Your task to perform on an android device: open app "Fetch Rewards" Image 0: 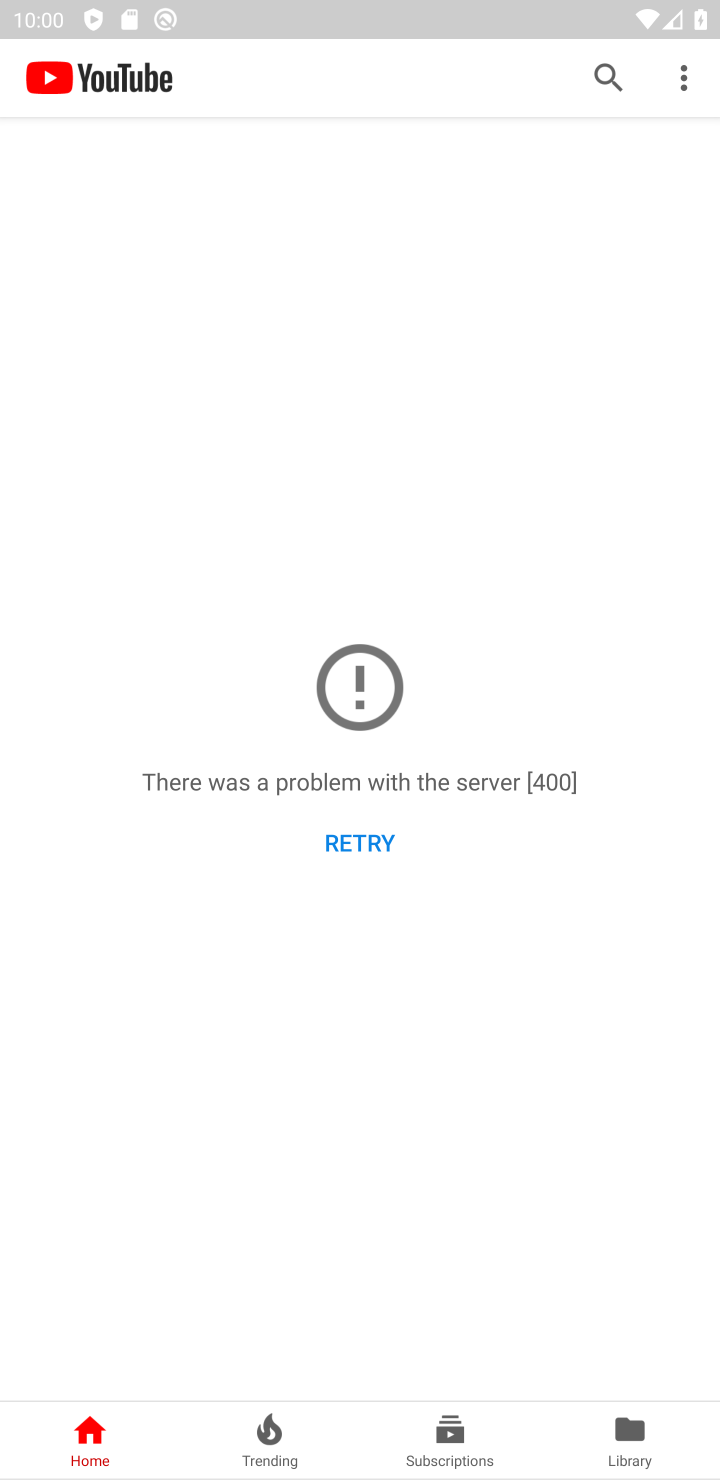
Step 0: press home button
Your task to perform on an android device: open app "Fetch Rewards" Image 1: 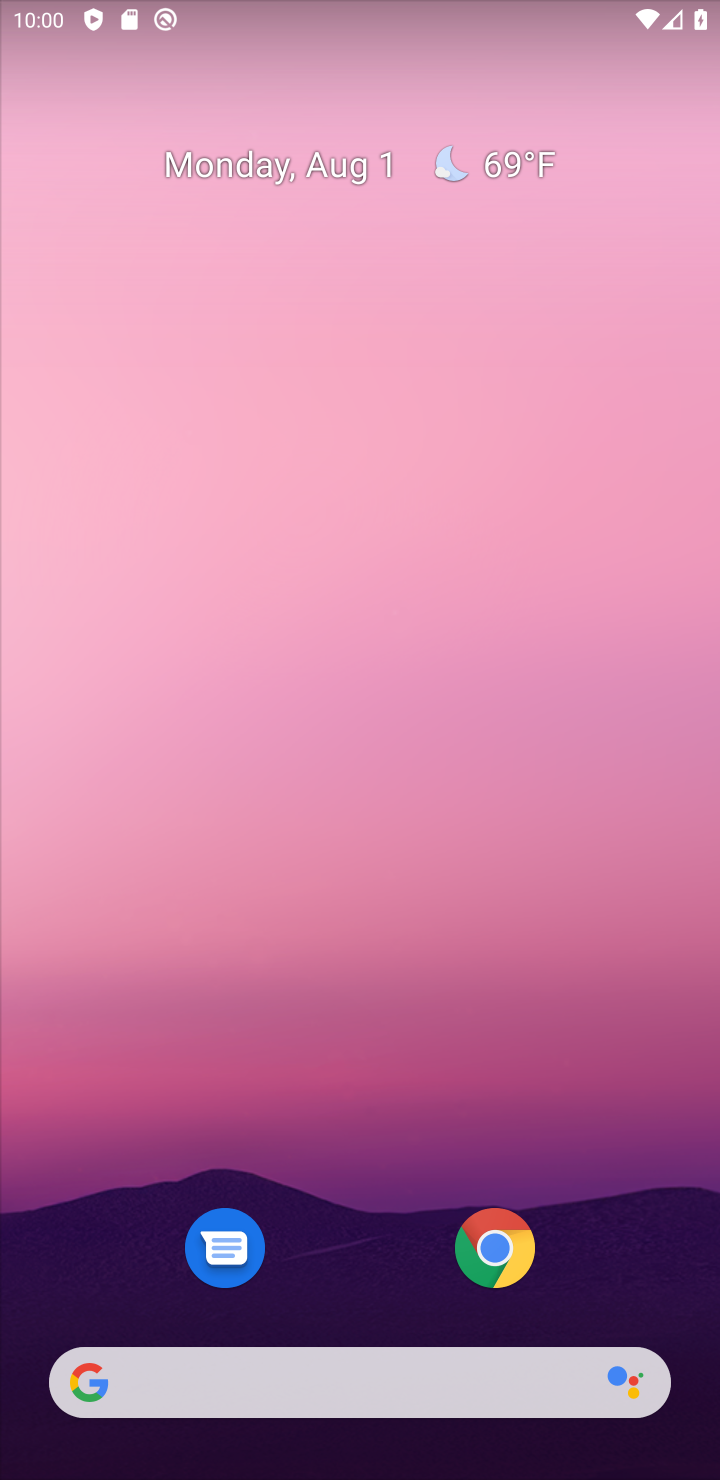
Step 1: drag from (425, 542) to (459, 144)
Your task to perform on an android device: open app "Fetch Rewards" Image 2: 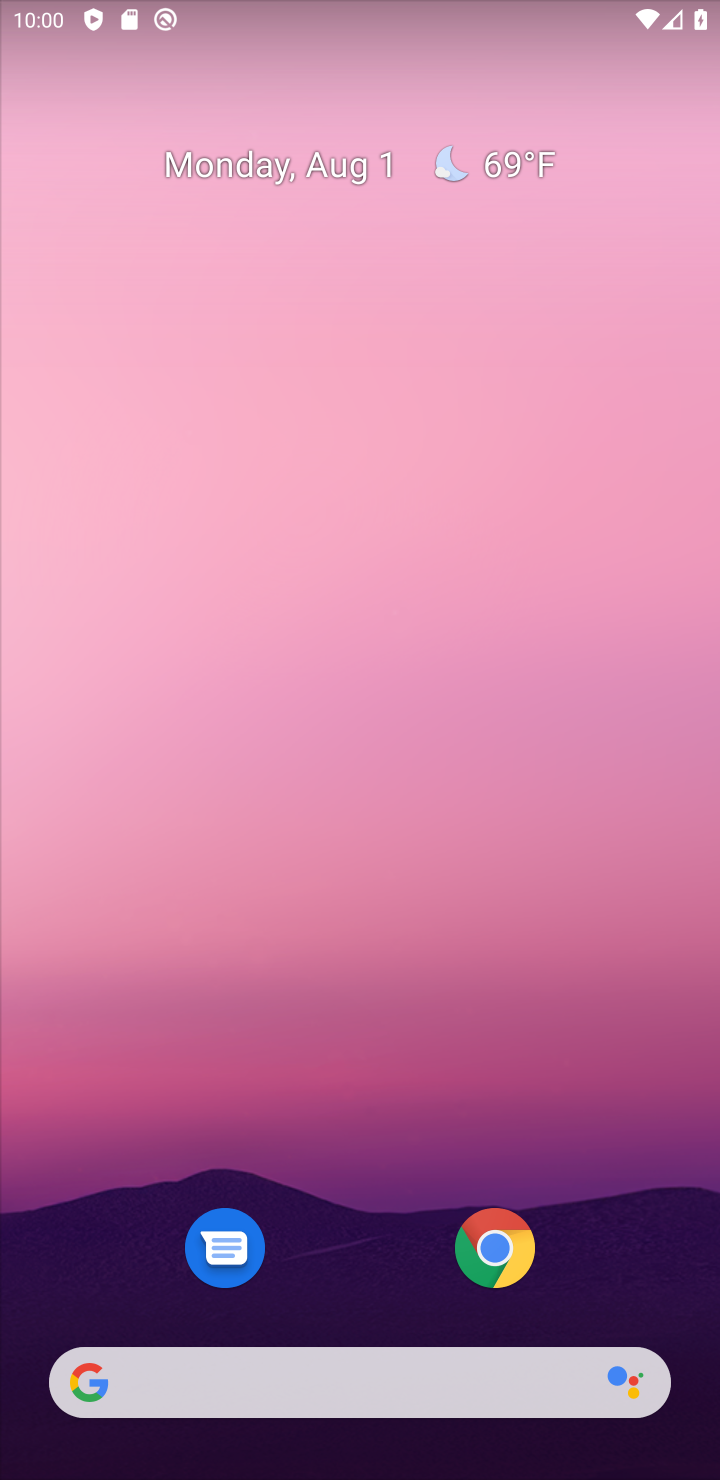
Step 2: drag from (349, 974) to (297, 8)
Your task to perform on an android device: open app "Fetch Rewards" Image 3: 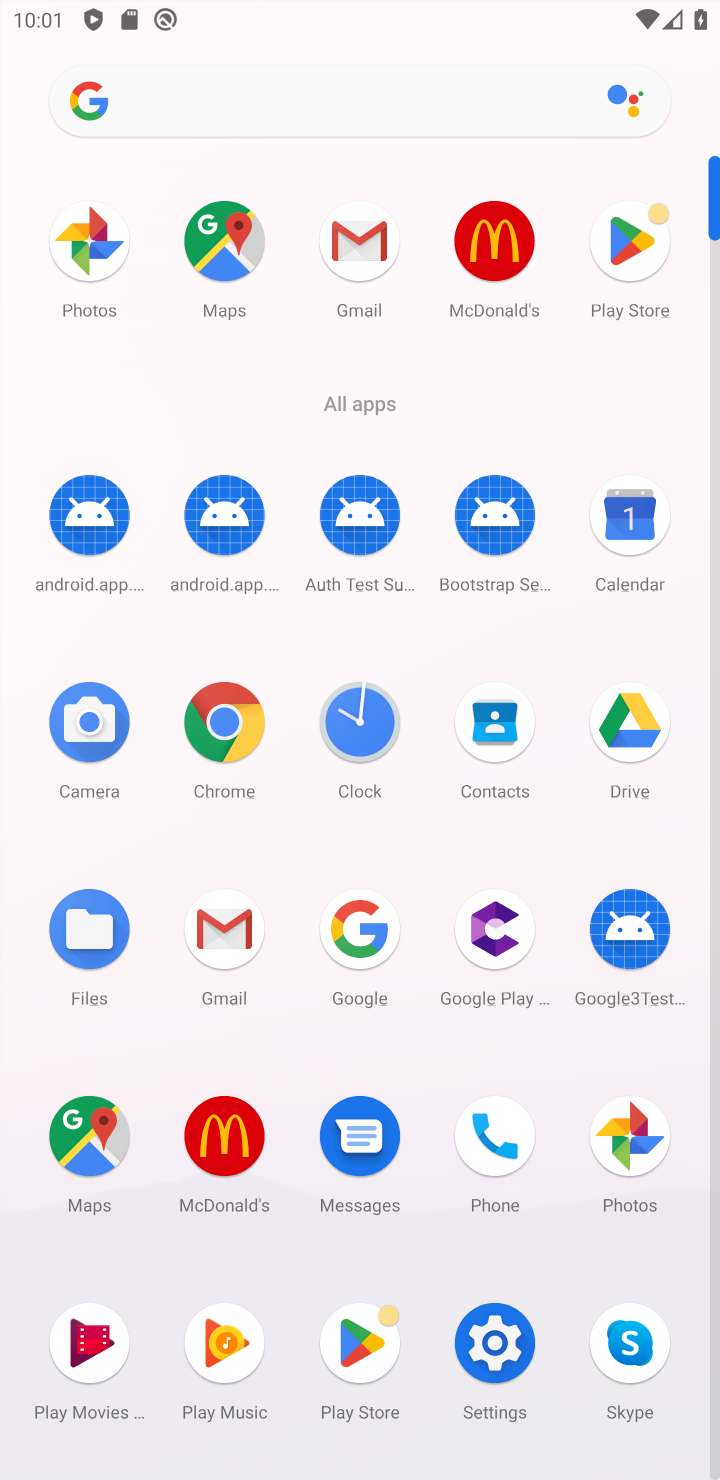
Step 3: click (643, 236)
Your task to perform on an android device: open app "Fetch Rewards" Image 4: 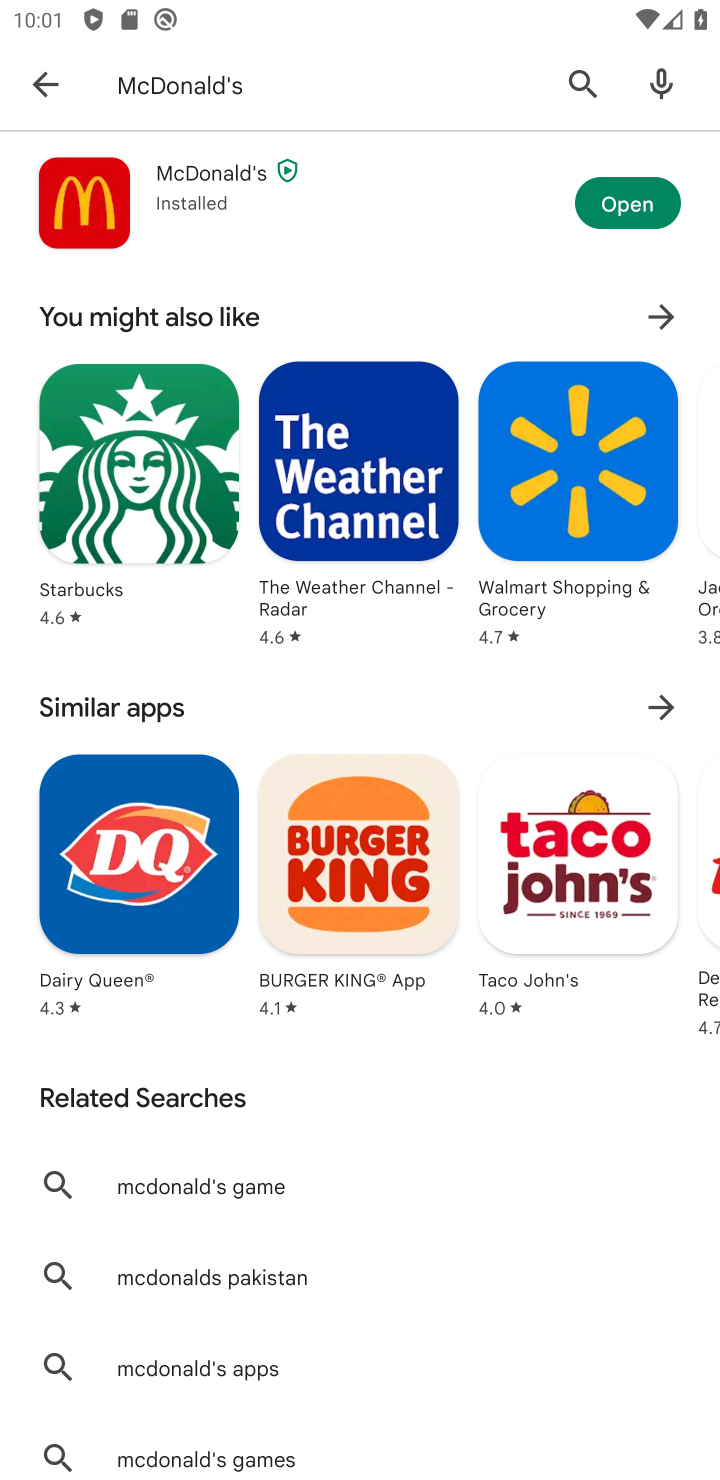
Step 4: click (461, 99)
Your task to perform on an android device: open app "Fetch Rewards" Image 5: 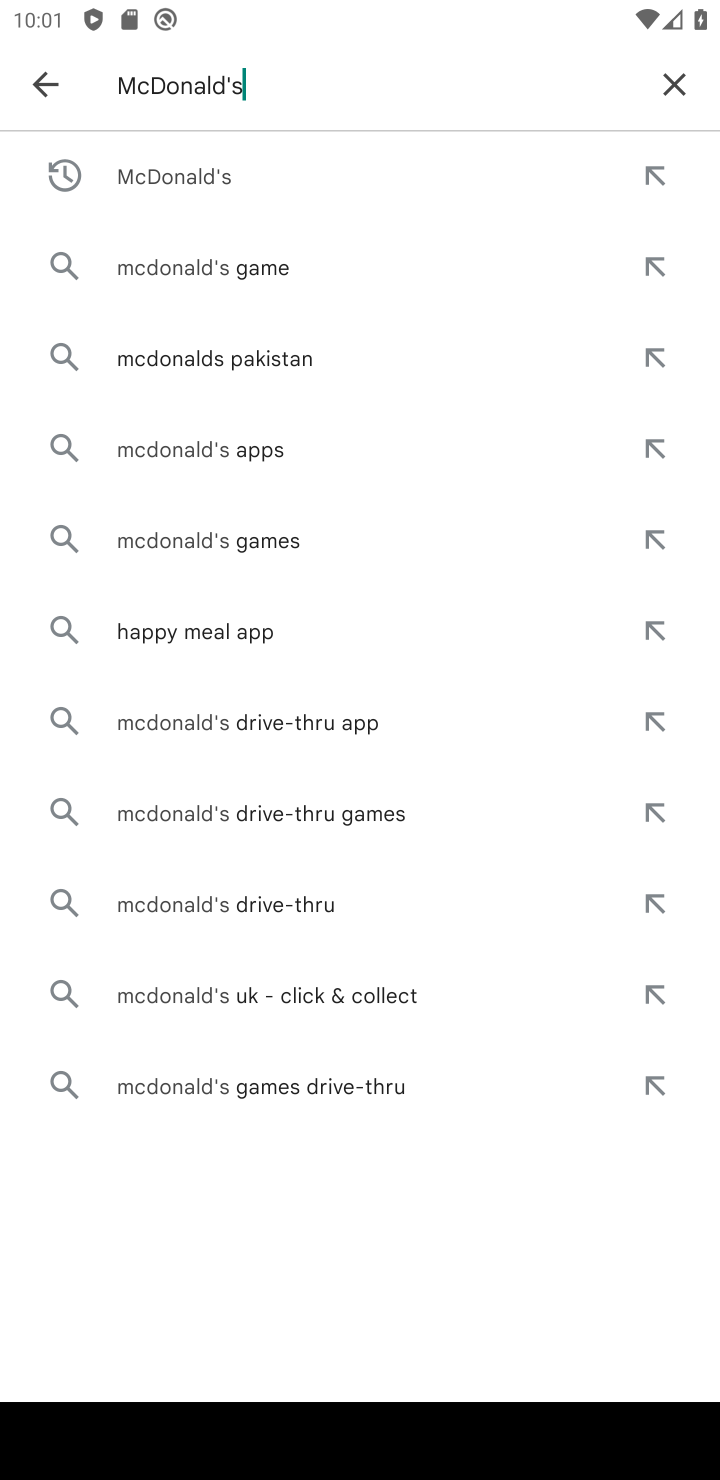
Step 5: click (684, 76)
Your task to perform on an android device: open app "Fetch Rewards" Image 6: 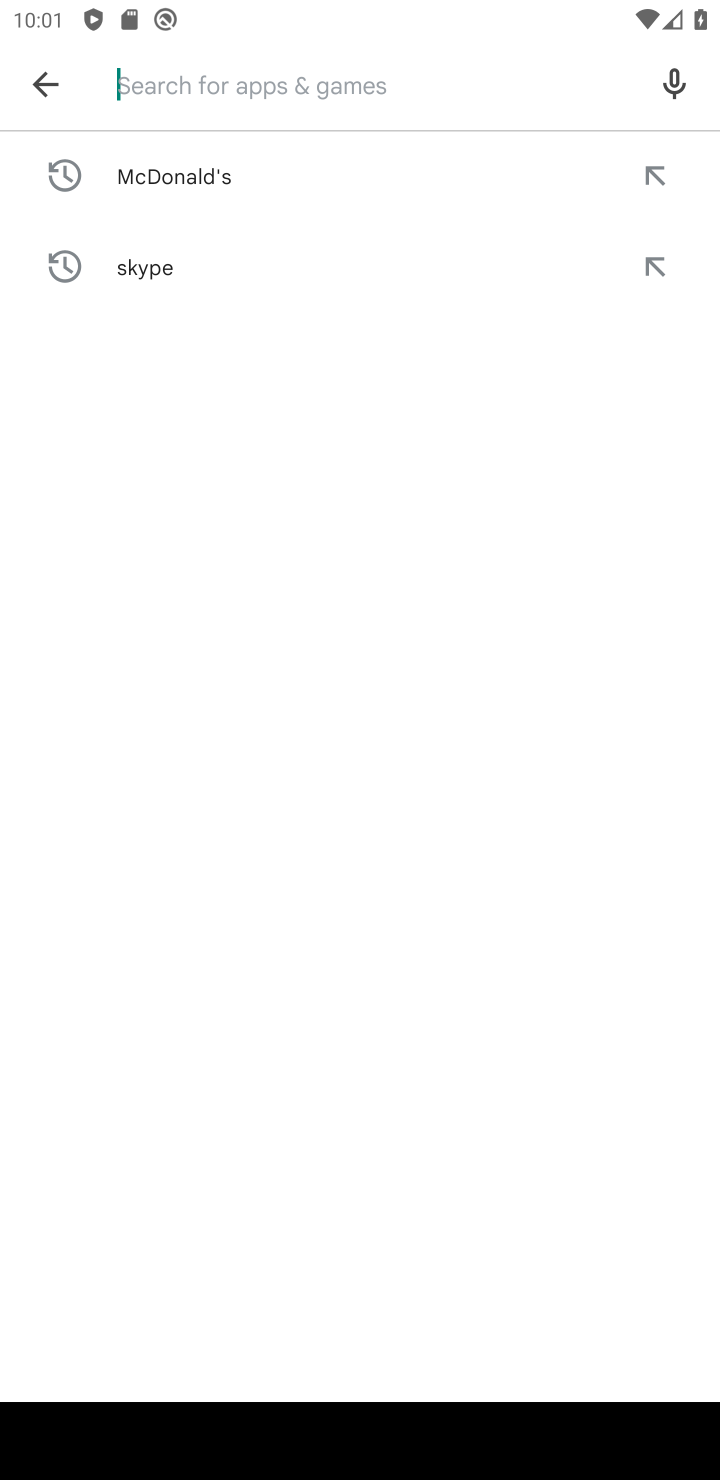
Step 6: type "Fetch Rewards"
Your task to perform on an android device: open app "Fetch Rewards" Image 7: 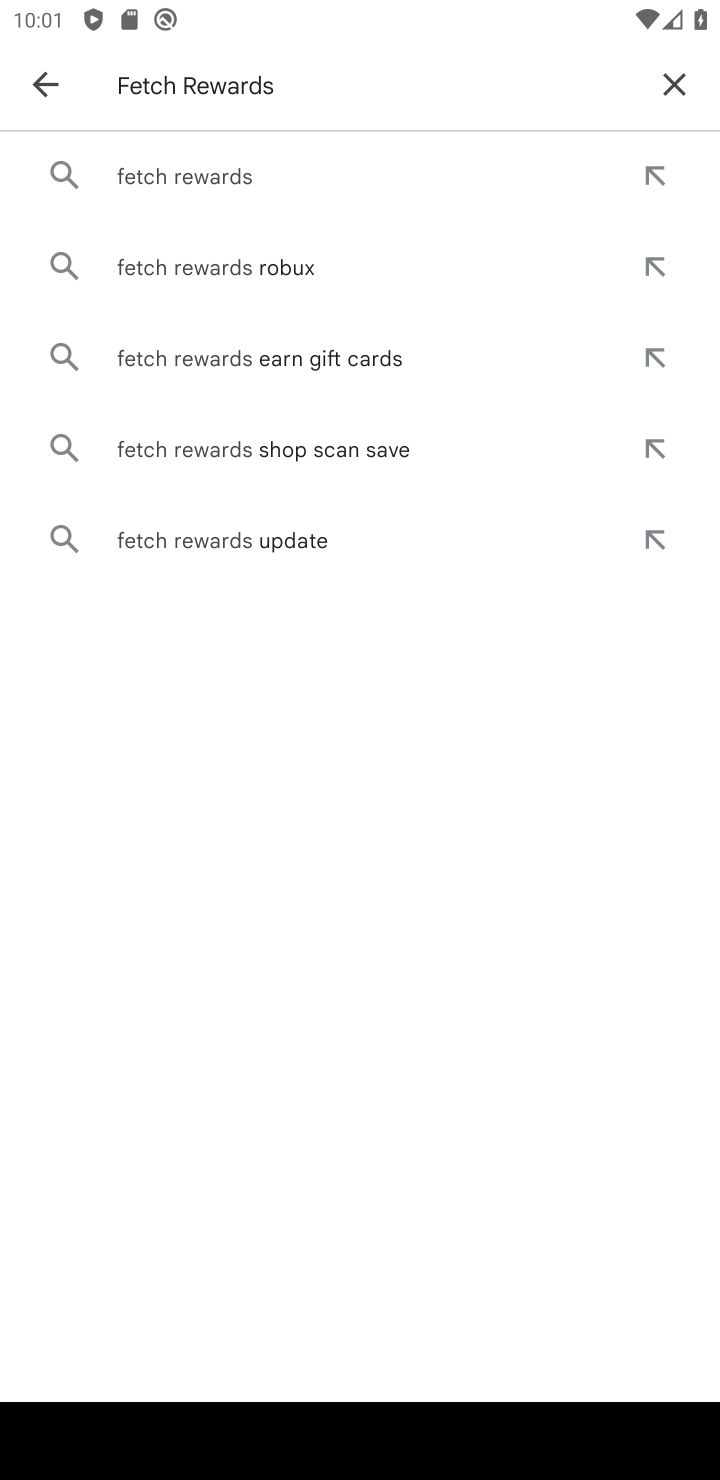
Step 7: press enter
Your task to perform on an android device: open app "Fetch Rewards" Image 8: 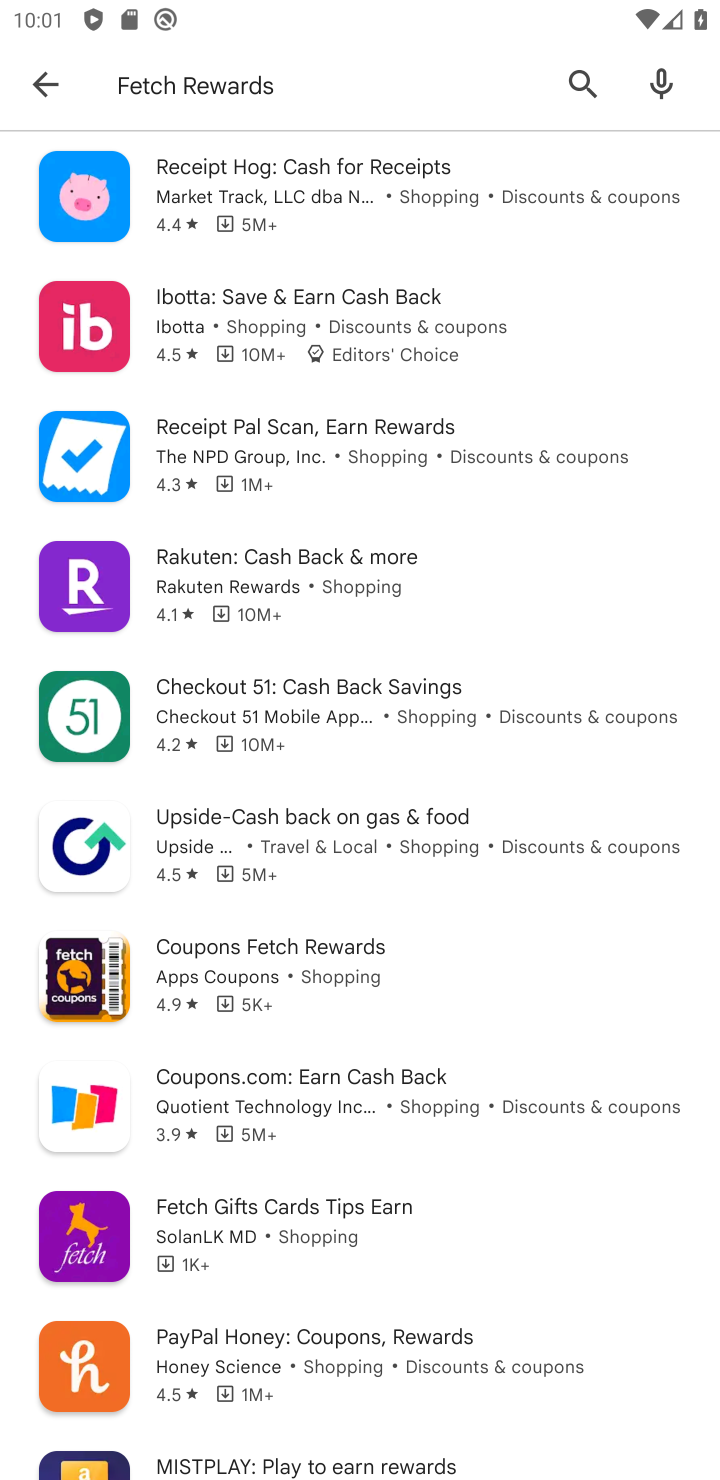
Step 8: task complete